Your task to perform on an android device: find snoozed emails in the gmail app Image 0: 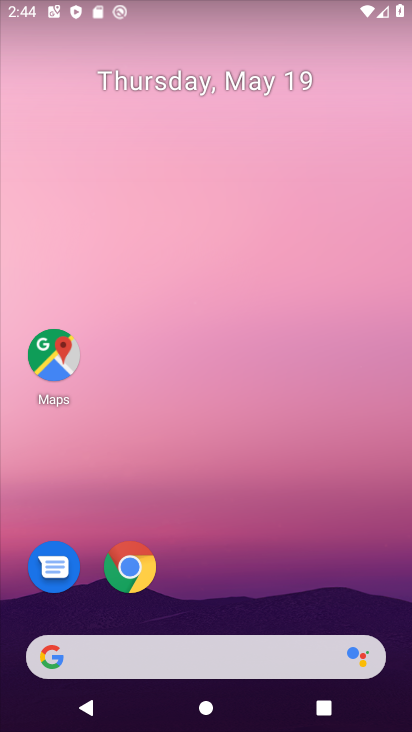
Step 0: drag from (227, 727) to (221, 138)
Your task to perform on an android device: find snoozed emails in the gmail app Image 1: 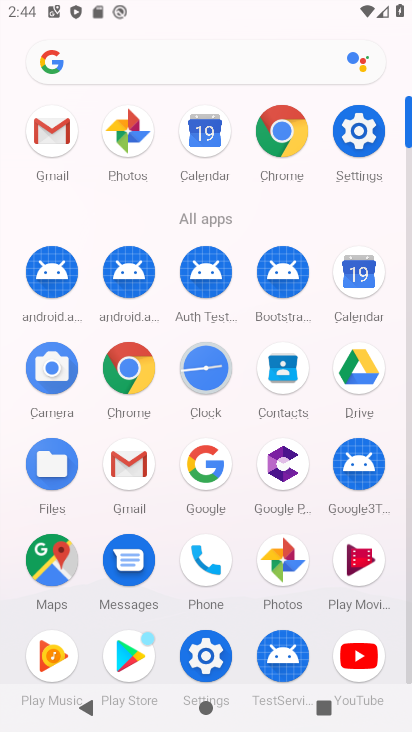
Step 1: click (136, 463)
Your task to perform on an android device: find snoozed emails in the gmail app Image 2: 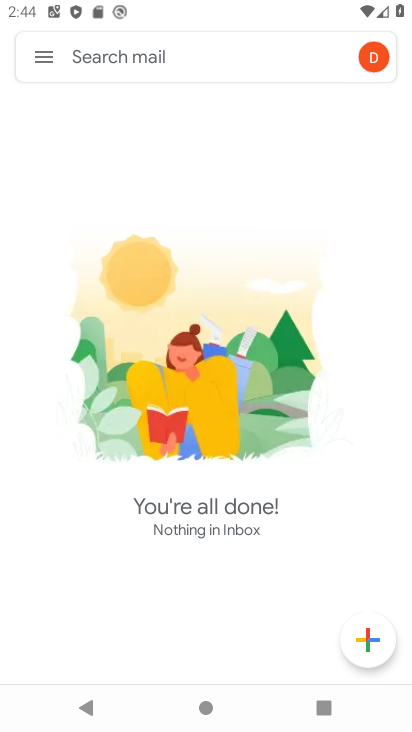
Step 2: click (41, 54)
Your task to perform on an android device: find snoozed emails in the gmail app Image 3: 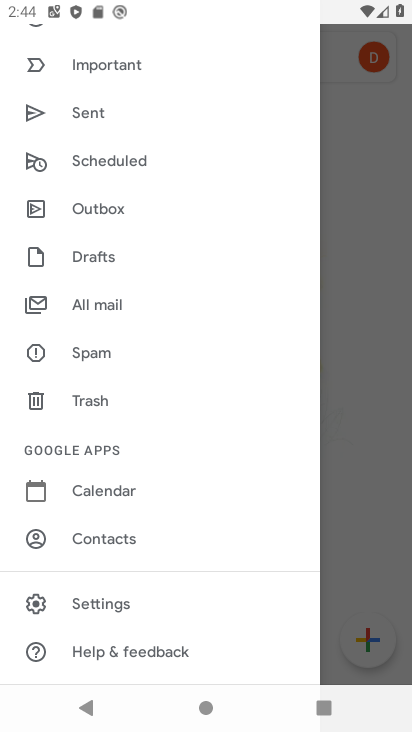
Step 3: drag from (163, 194) to (184, 421)
Your task to perform on an android device: find snoozed emails in the gmail app Image 4: 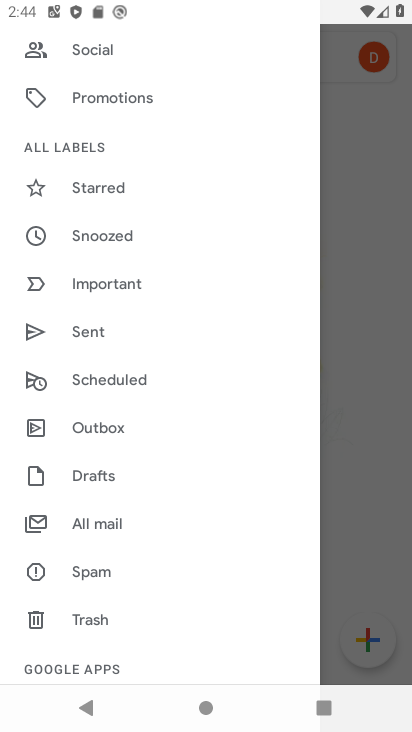
Step 4: click (112, 227)
Your task to perform on an android device: find snoozed emails in the gmail app Image 5: 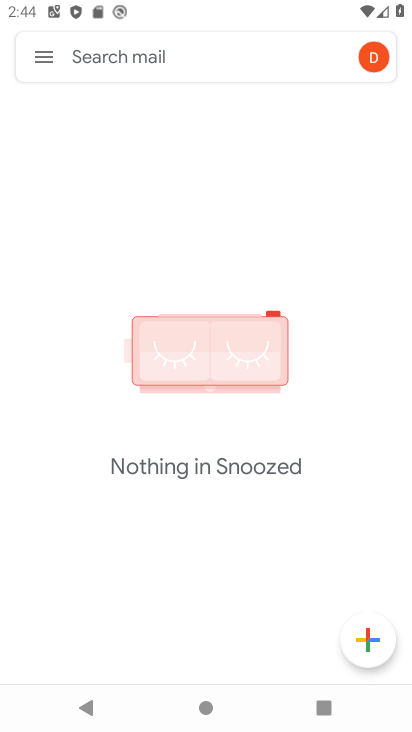
Step 5: task complete